Your task to perform on an android device: turn on showing notifications on the lock screen Image 0: 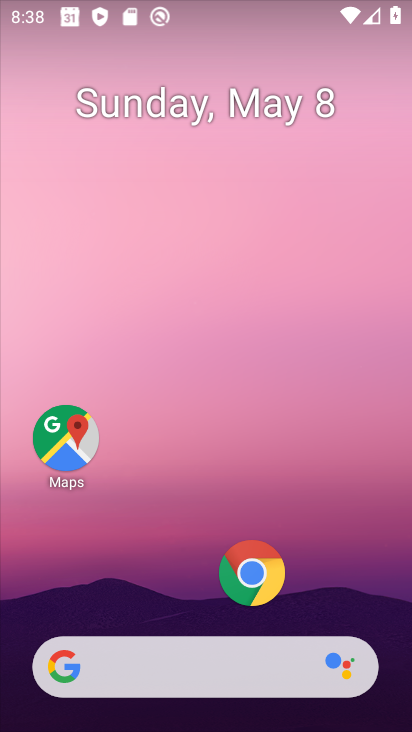
Step 0: drag from (165, 552) to (240, 68)
Your task to perform on an android device: turn on showing notifications on the lock screen Image 1: 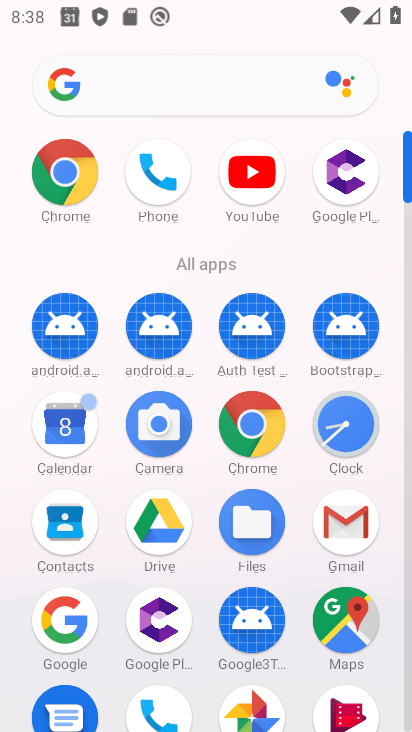
Step 1: drag from (202, 568) to (251, 314)
Your task to perform on an android device: turn on showing notifications on the lock screen Image 2: 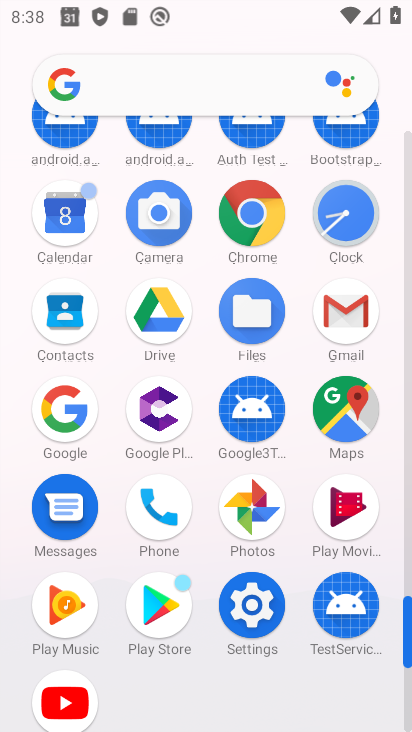
Step 2: click (255, 605)
Your task to perform on an android device: turn on showing notifications on the lock screen Image 3: 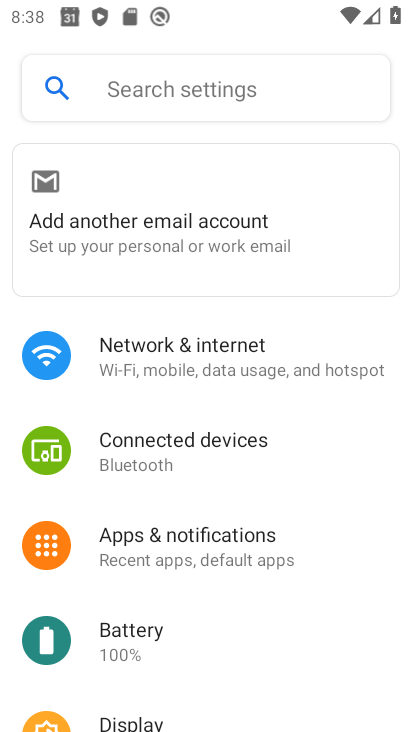
Step 3: click (234, 544)
Your task to perform on an android device: turn on showing notifications on the lock screen Image 4: 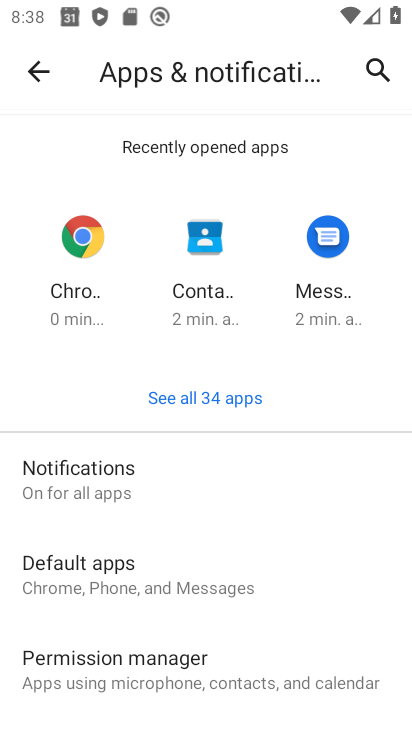
Step 4: click (99, 479)
Your task to perform on an android device: turn on showing notifications on the lock screen Image 5: 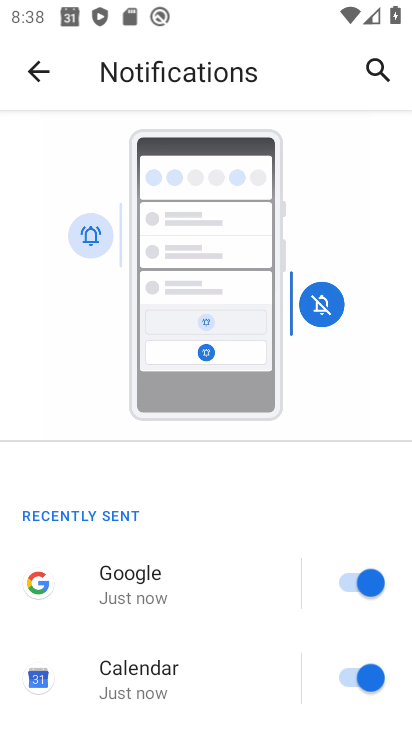
Step 5: drag from (200, 623) to (250, 296)
Your task to perform on an android device: turn on showing notifications on the lock screen Image 6: 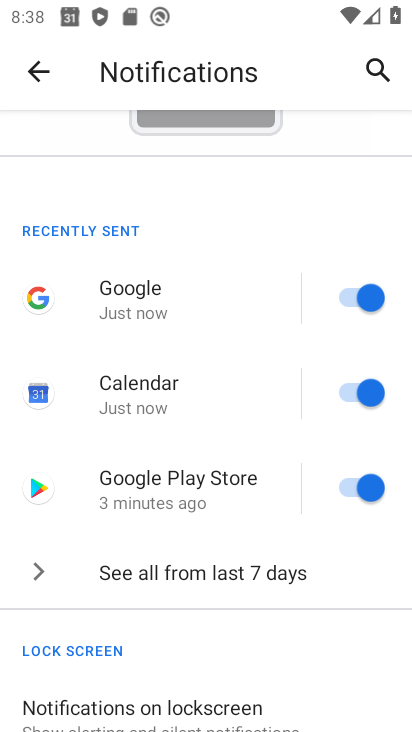
Step 6: drag from (180, 649) to (194, 421)
Your task to perform on an android device: turn on showing notifications on the lock screen Image 7: 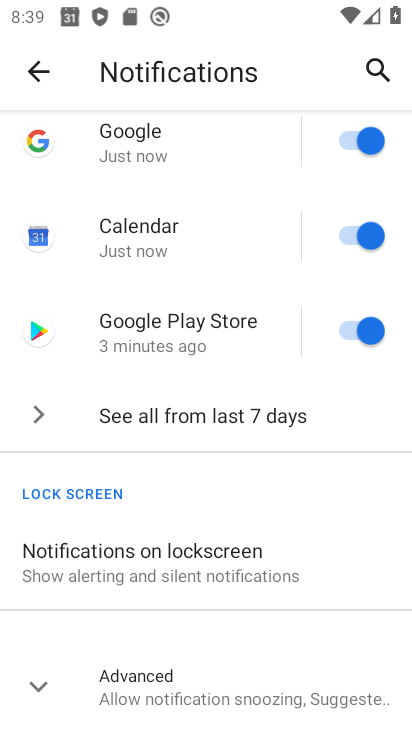
Step 7: click (195, 550)
Your task to perform on an android device: turn on showing notifications on the lock screen Image 8: 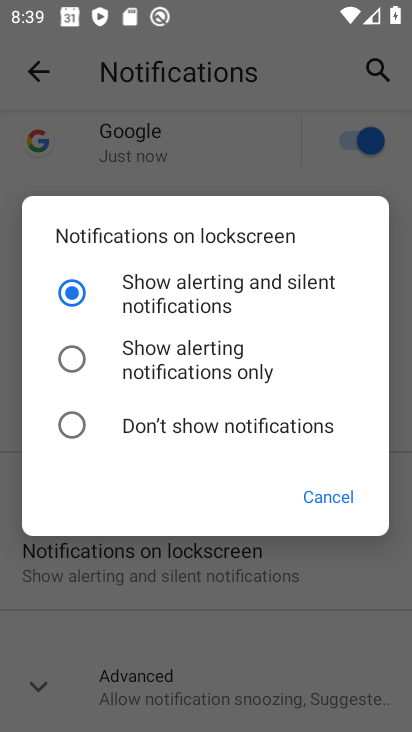
Step 8: task complete